Your task to perform on an android device: Open ESPN.com Image 0: 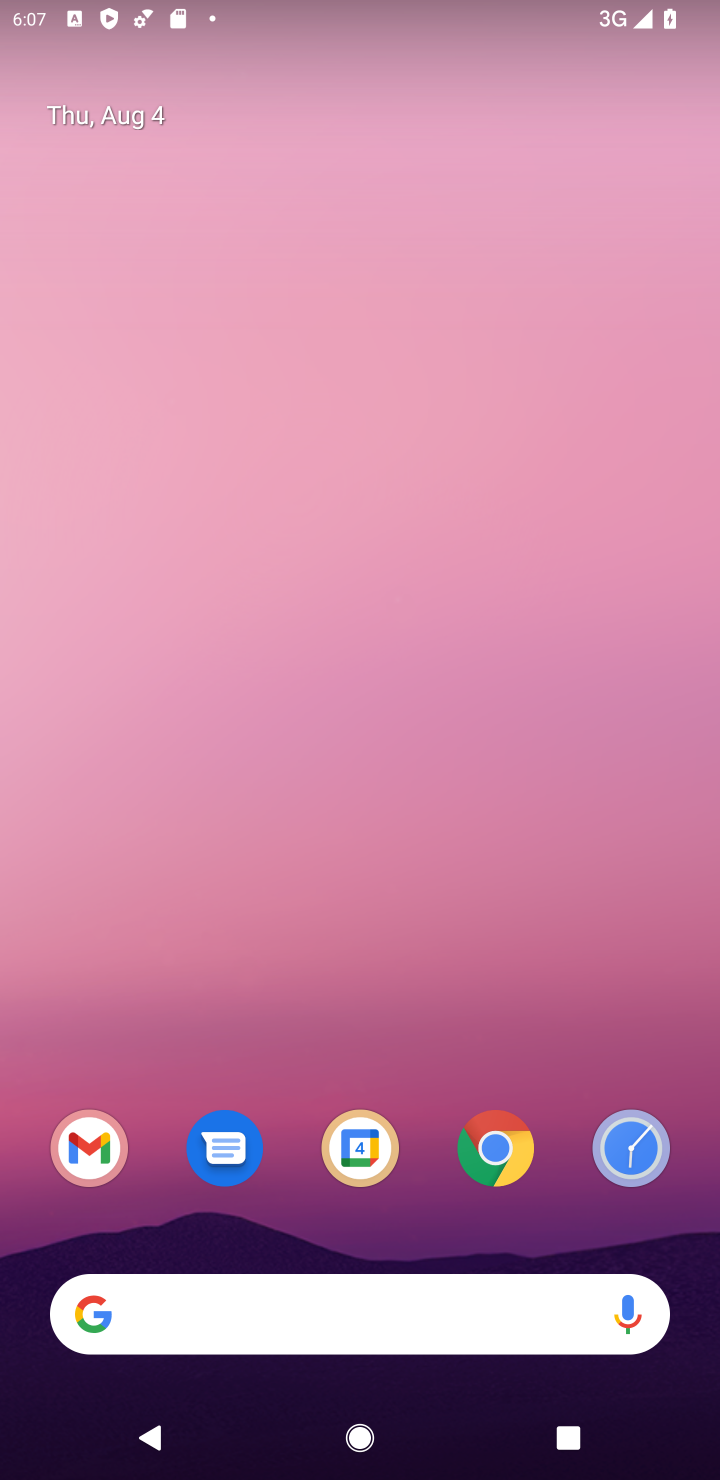
Step 0: click (497, 1155)
Your task to perform on an android device: Open ESPN.com Image 1: 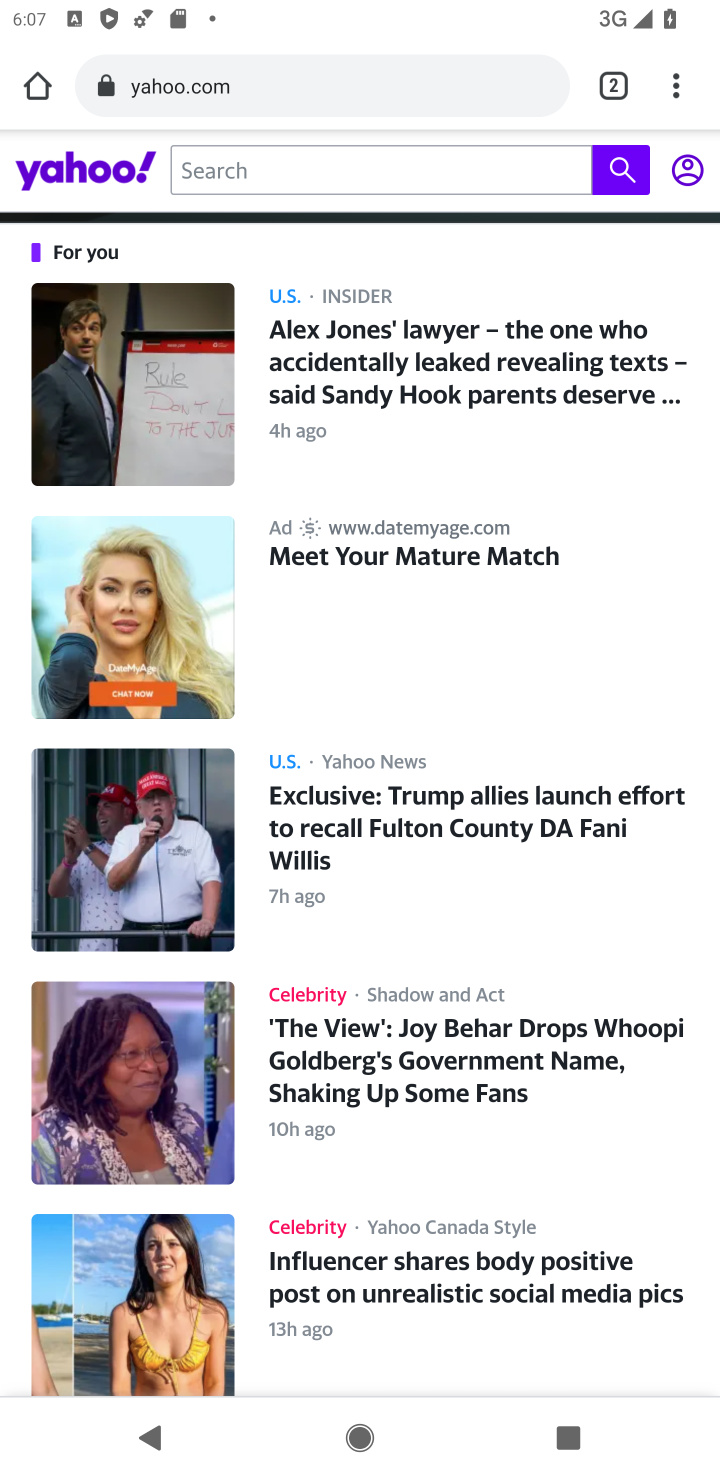
Step 1: click (312, 59)
Your task to perform on an android device: Open ESPN.com Image 2: 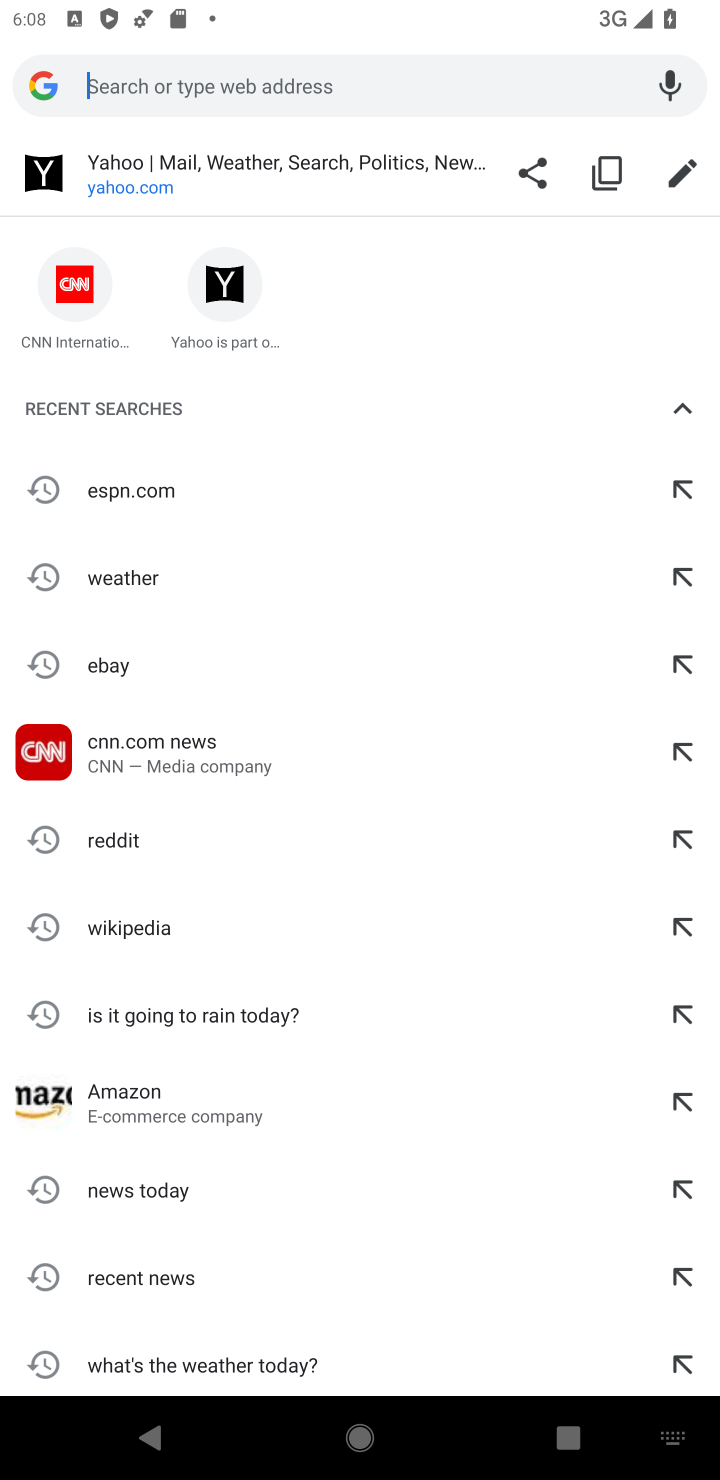
Step 2: type "espn.com"
Your task to perform on an android device: Open ESPN.com Image 3: 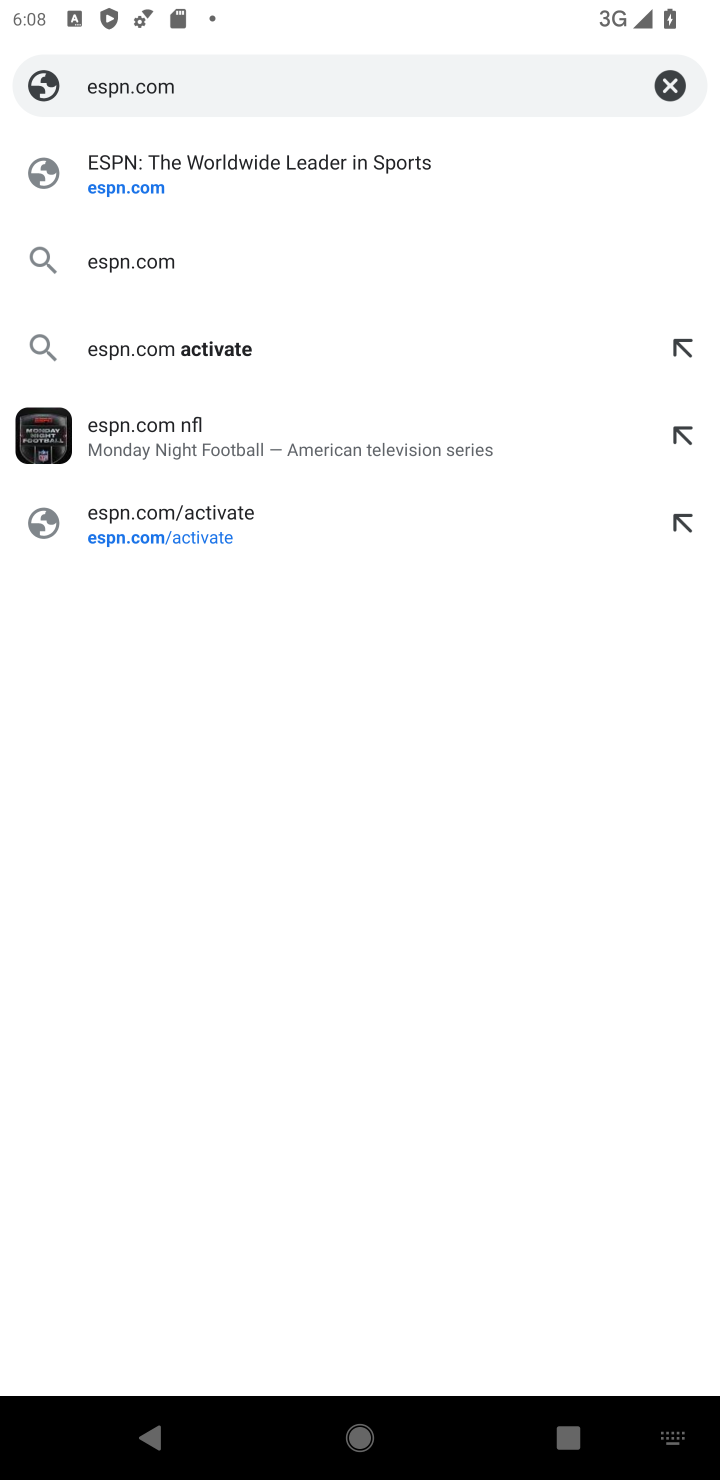
Step 3: click (126, 168)
Your task to perform on an android device: Open ESPN.com Image 4: 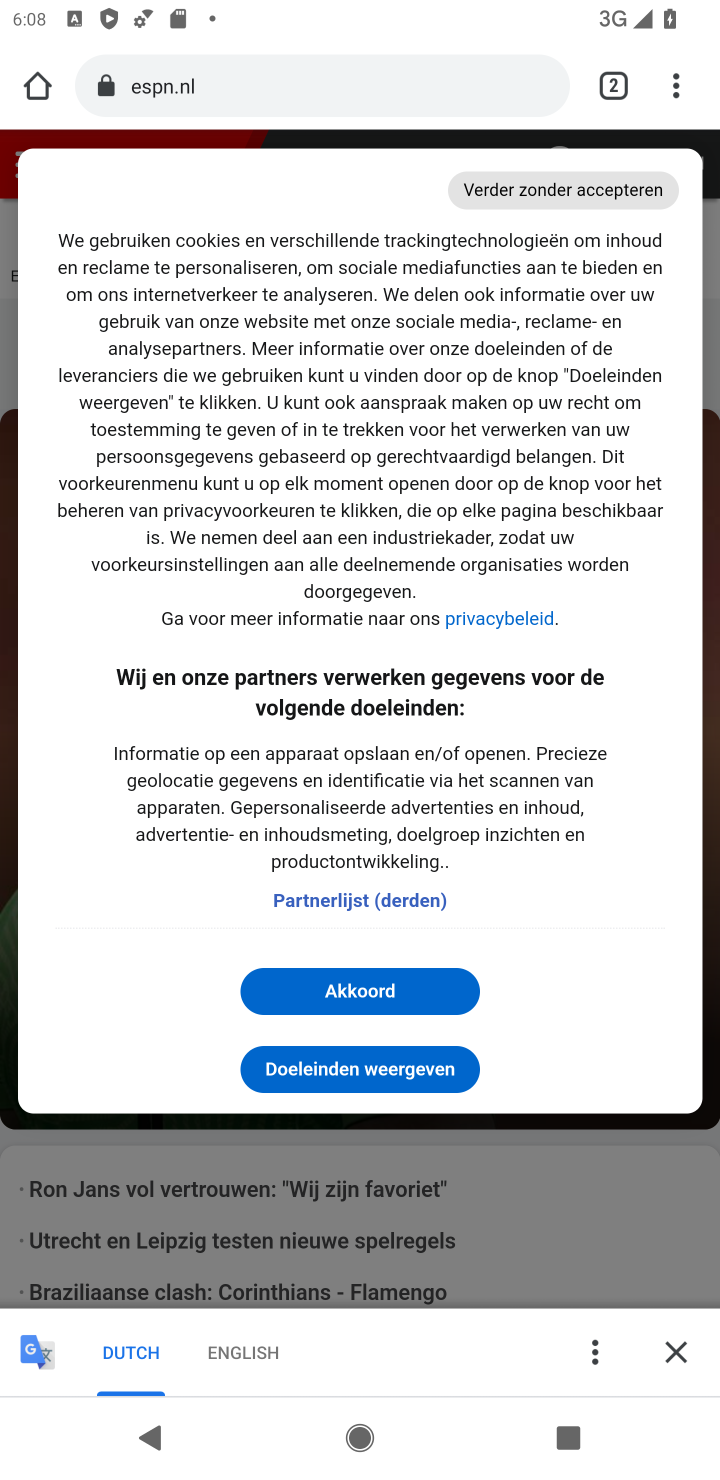
Step 4: click (363, 993)
Your task to perform on an android device: Open ESPN.com Image 5: 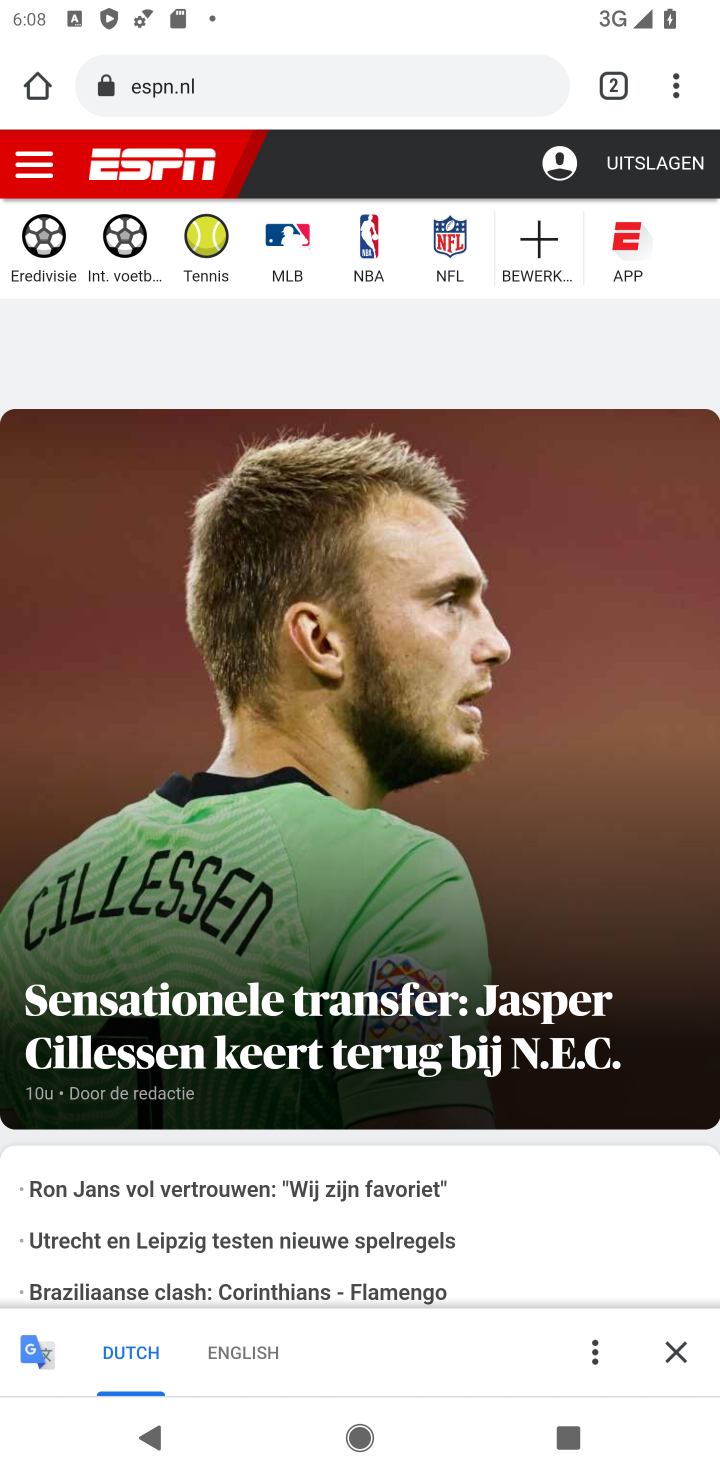
Step 5: task complete